Your task to perform on an android device: add a contact Image 0: 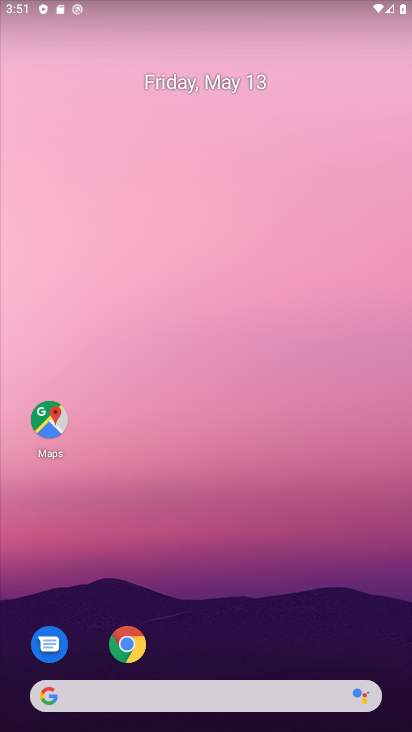
Step 0: drag from (304, 614) to (216, 25)
Your task to perform on an android device: add a contact Image 1: 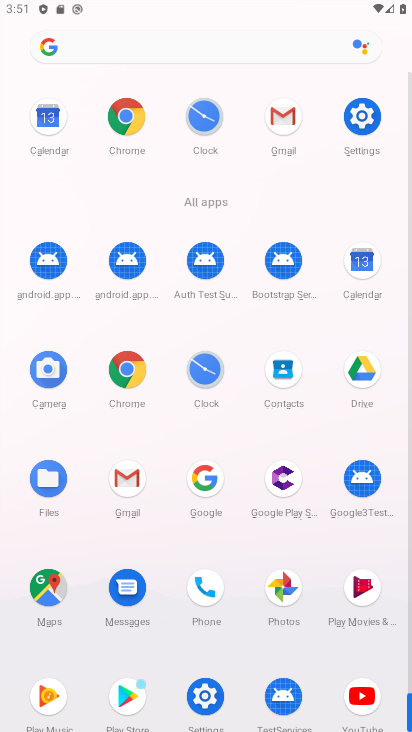
Step 1: click (281, 367)
Your task to perform on an android device: add a contact Image 2: 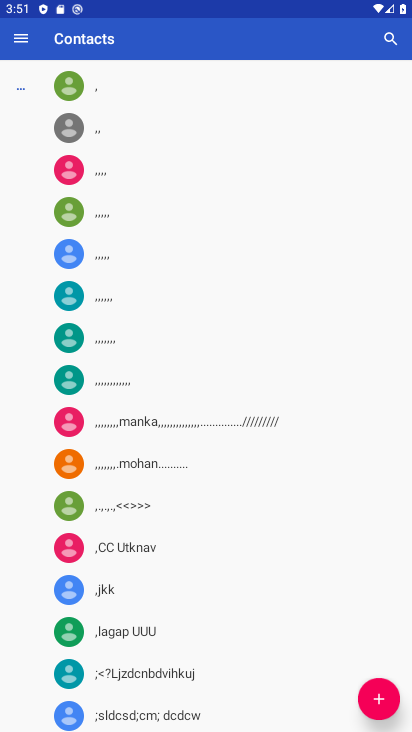
Step 2: click (382, 697)
Your task to perform on an android device: add a contact Image 3: 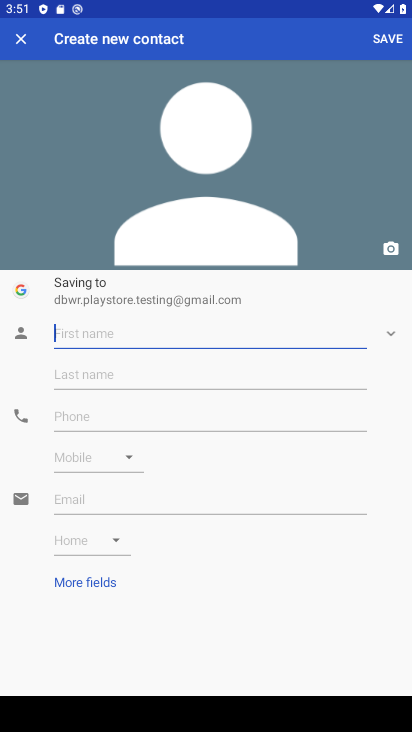
Step 3: type "op"
Your task to perform on an android device: add a contact Image 4: 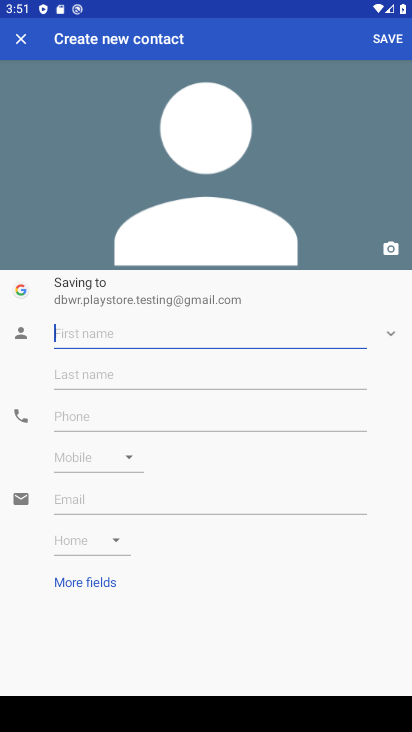
Step 4: click (118, 411)
Your task to perform on an android device: add a contact Image 5: 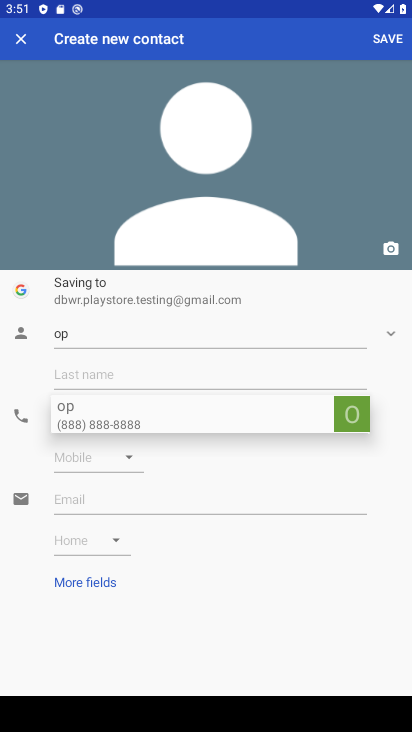
Step 5: type "9900990099"
Your task to perform on an android device: add a contact Image 6: 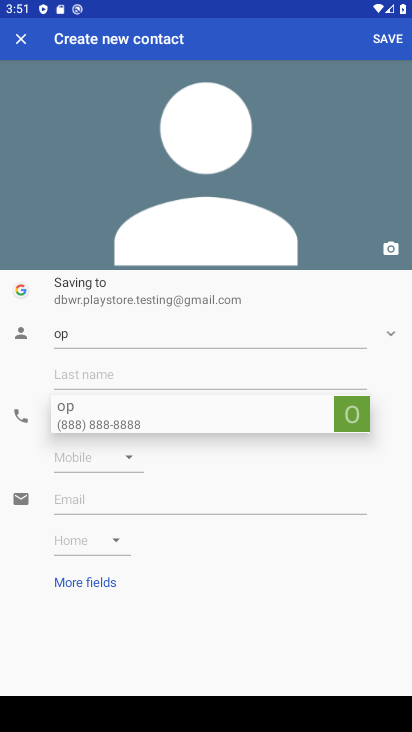
Step 6: click (401, 43)
Your task to perform on an android device: add a contact Image 7: 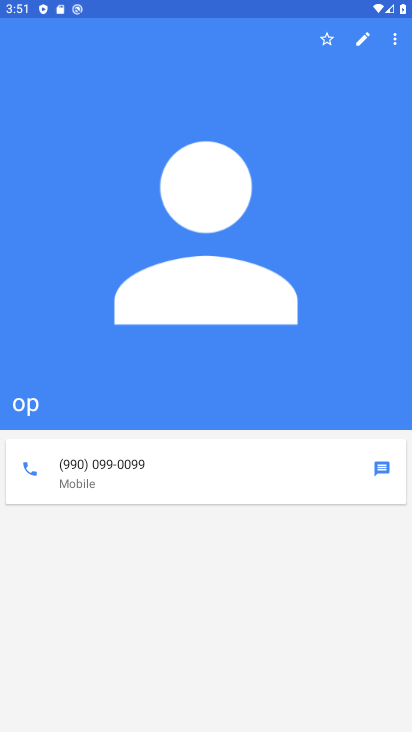
Step 7: task complete